Your task to perform on an android device: Go to display settings Image 0: 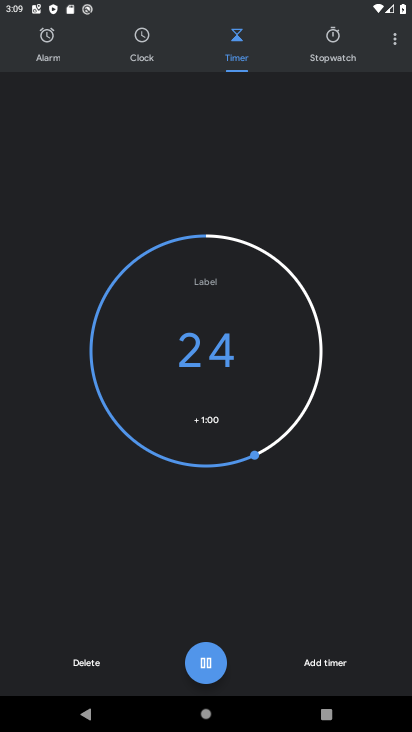
Step 0: press home button
Your task to perform on an android device: Go to display settings Image 1: 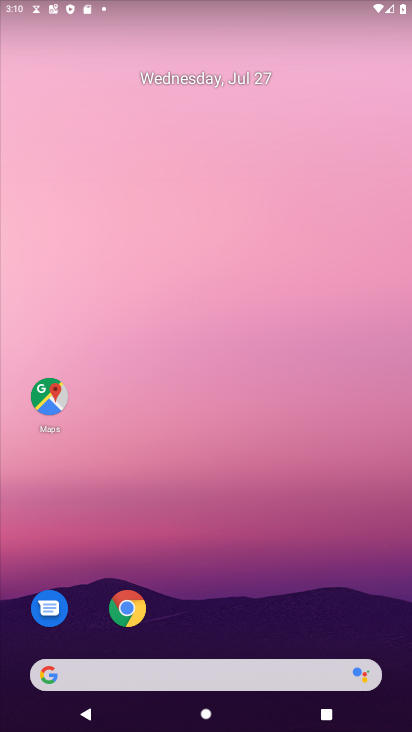
Step 1: drag from (398, 703) to (335, 43)
Your task to perform on an android device: Go to display settings Image 2: 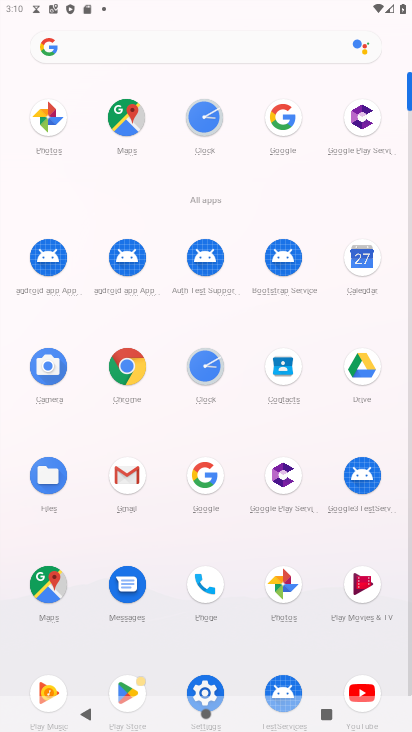
Step 2: click (202, 682)
Your task to perform on an android device: Go to display settings Image 3: 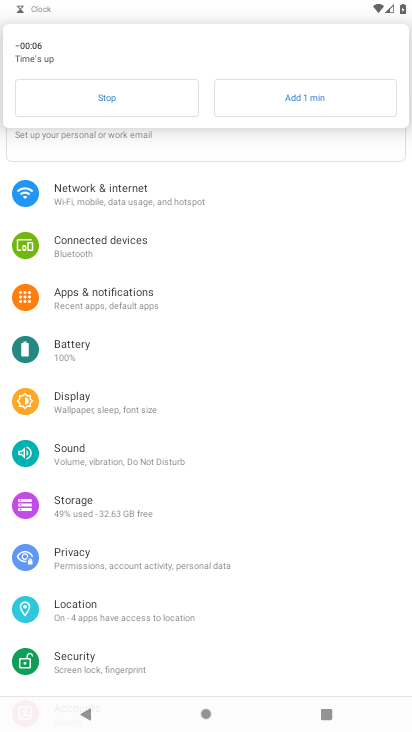
Step 3: click (71, 397)
Your task to perform on an android device: Go to display settings Image 4: 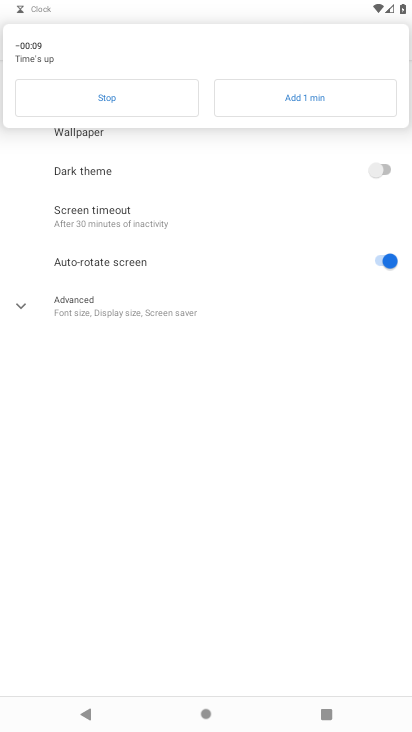
Step 4: click (22, 310)
Your task to perform on an android device: Go to display settings Image 5: 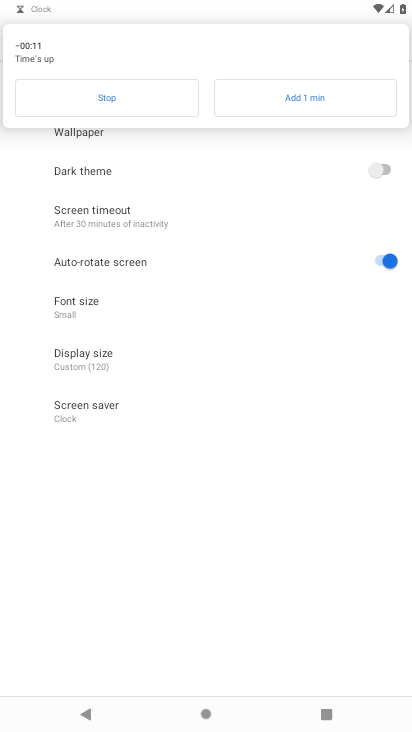
Step 5: click (131, 96)
Your task to perform on an android device: Go to display settings Image 6: 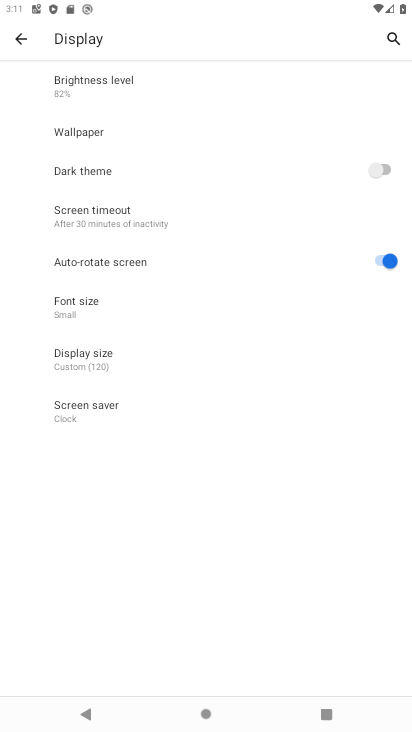
Step 6: click (71, 350)
Your task to perform on an android device: Go to display settings Image 7: 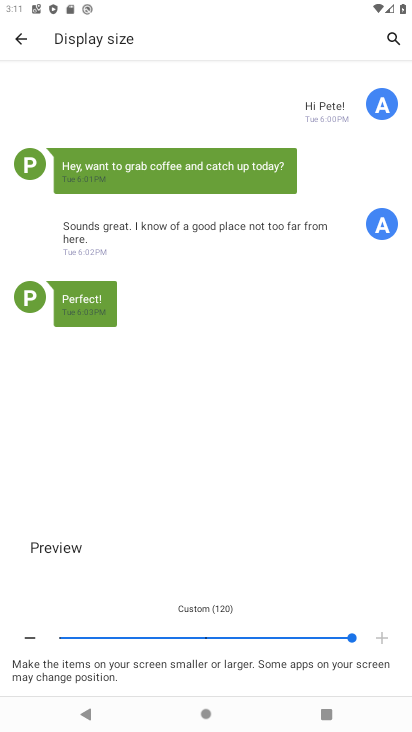
Step 7: task complete